Your task to perform on an android device: Open the stopwatch Image 0: 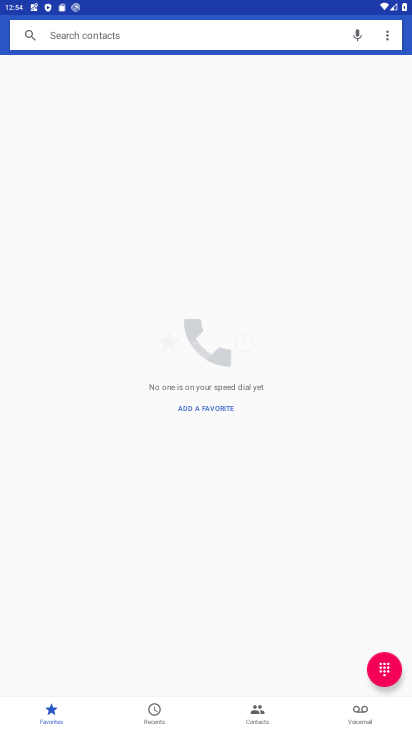
Step 0: press home button
Your task to perform on an android device: Open the stopwatch Image 1: 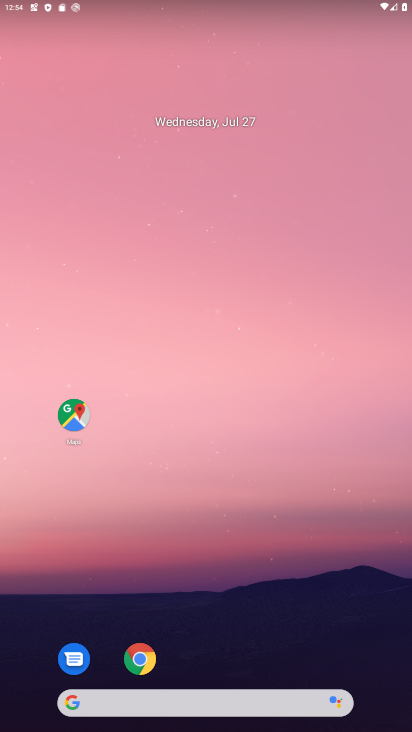
Step 1: drag from (218, 661) to (253, 266)
Your task to perform on an android device: Open the stopwatch Image 2: 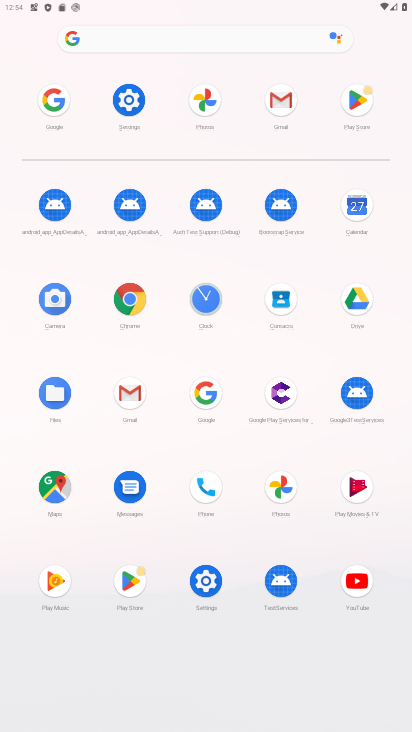
Step 2: click (219, 303)
Your task to perform on an android device: Open the stopwatch Image 3: 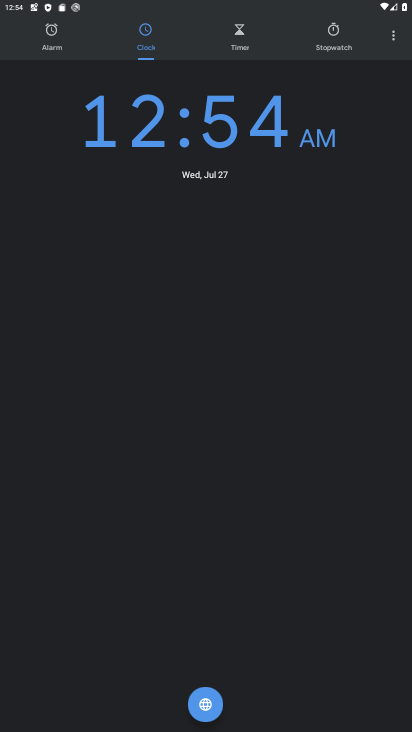
Step 3: click (337, 30)
Your task to perform on an android device: Open the stopwatch Image 4: 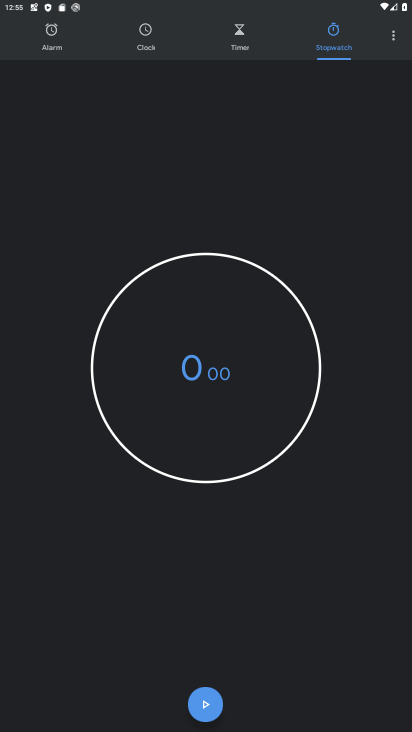
Step 4: task complete